Your task to perform on an android device: see creations saved in the google photos Image 0: 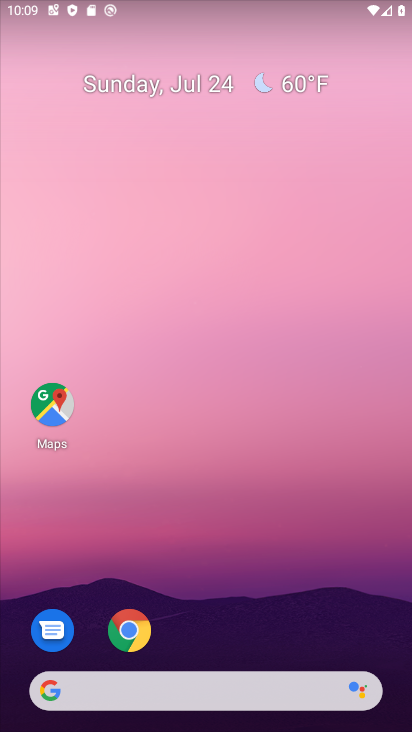
Step 0: drag from (238, 310) to (297, 7)
Your task to perform on an android device: see creations saved in the google photos Image 1: 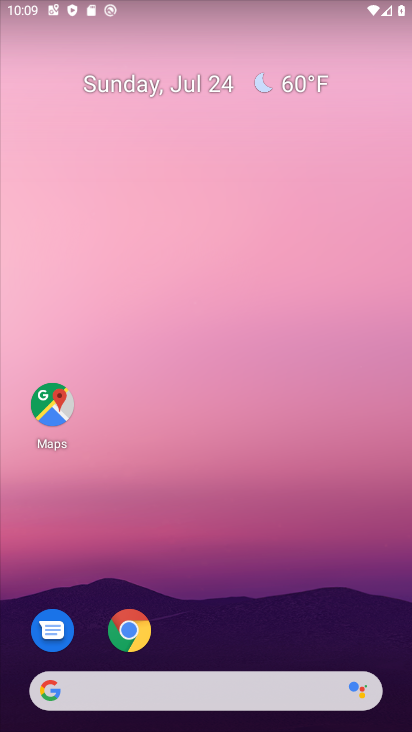
Step 1: drag from (214, 638) to (309, 4)
Your task to perform on an android device: see creations saved in the google photos Image 2: 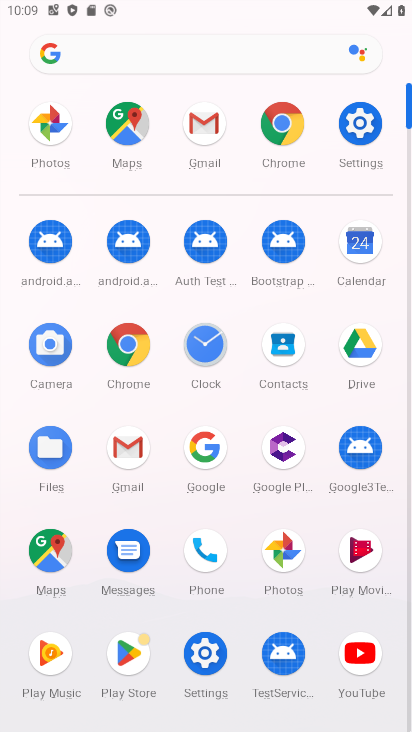
Step 2: click (287, 569)
Your task to perform on an android device: see creations saved in the google photos Image 3: 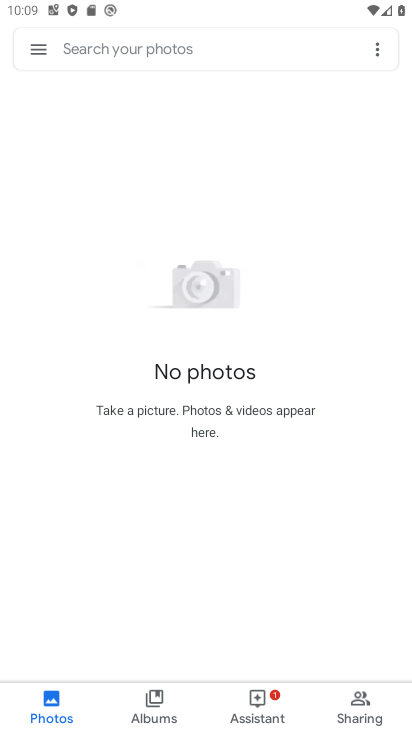
Step 3: click (158, 51)
Your task to perform on an android device: see creations saved in the google photos Image 4: 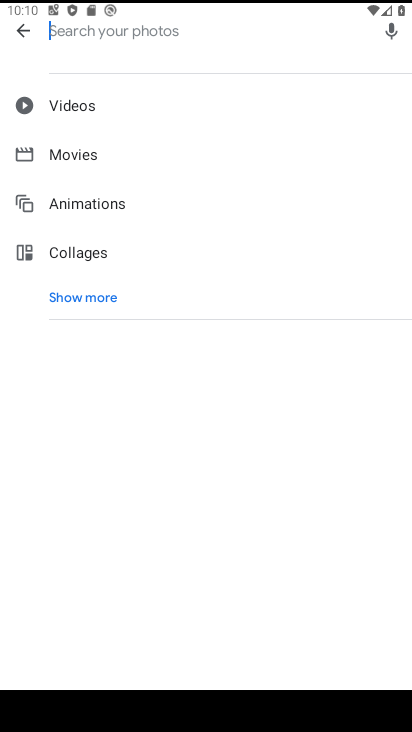
Step 4: type "creations"
Your task to perform on an android device: see creations saved in the google photos Image 5: 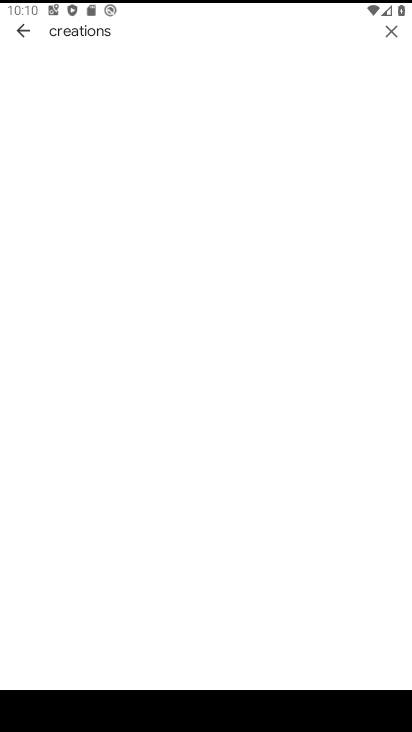
Step 5: task complete